Your task to perform on an android device: Turn off the flashlight Image 0: 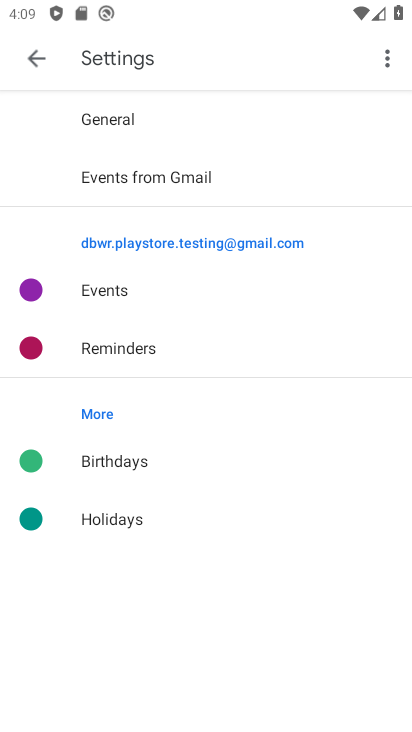
Step 0: press home button
Your task to perform on an android device: Turn off the flashlight Image 1: 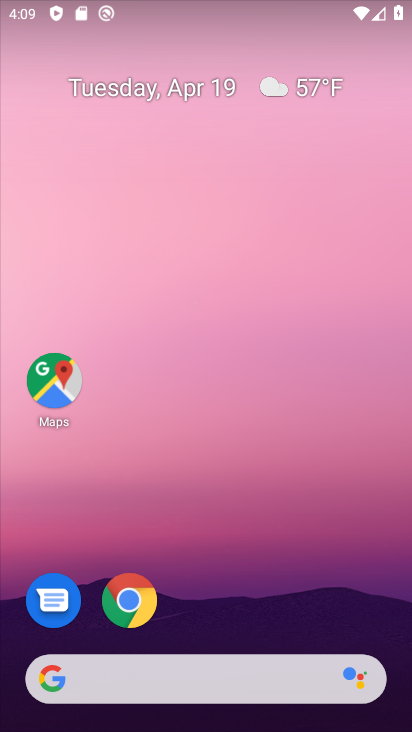
Step 1: drag from (335, 3) to (360, 458)
Your task to perform on an android device: Turn off the flashlight Image 2: 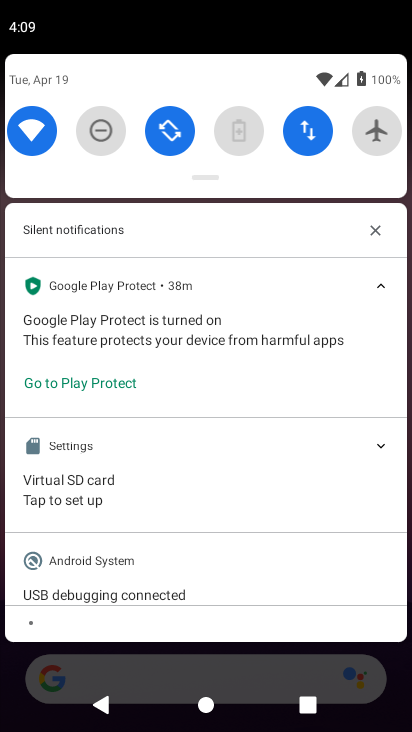
Step 2: drag from (275, 165) to (309, 565)
Your task to perform on an android device: Turn off the flashlight Image 3: 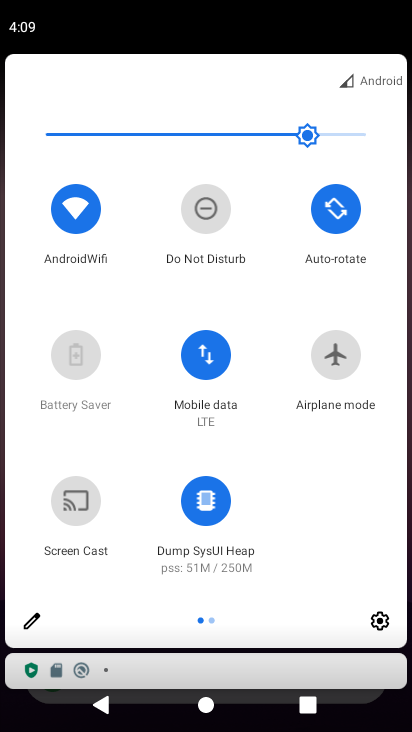
Step 3: drag from (378, 440) to (14, 433)
Your task to perform on an android device: Turn off the flashlight Image 4: 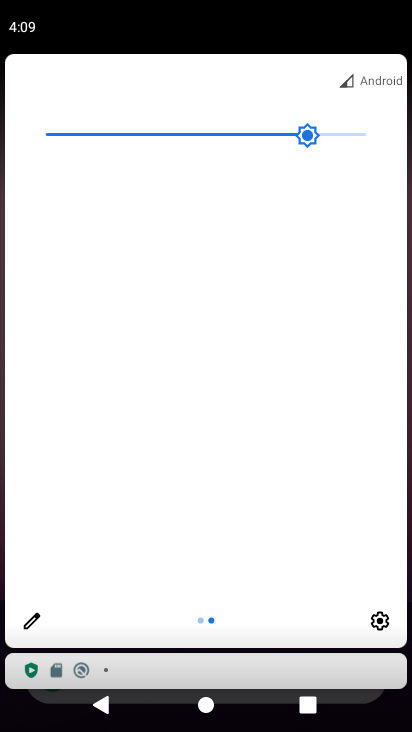
Step 4: click (28, 616)
Your task to perform on an android device: Turn off the flashlight Image 5: 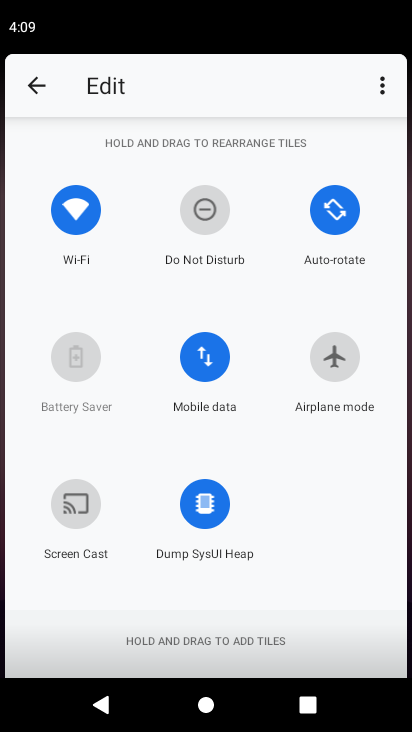
Step 5: task complete